Your task to perform on an android device: turn pop-ups off in chrome Image 0: 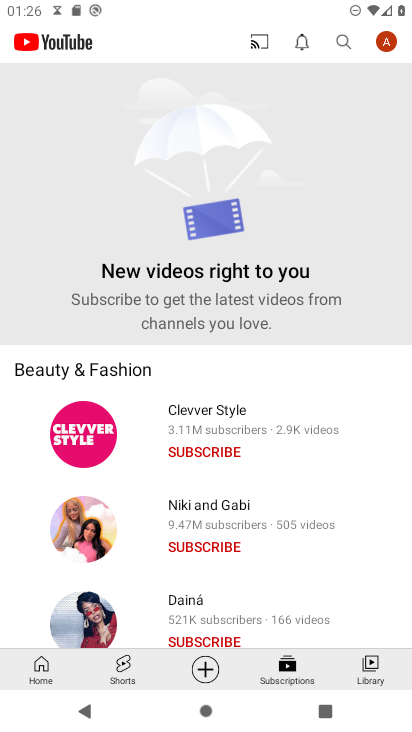
Step 0: press home button
Your task to perform on an android device: turn pop-ups off in chrome Image 1: 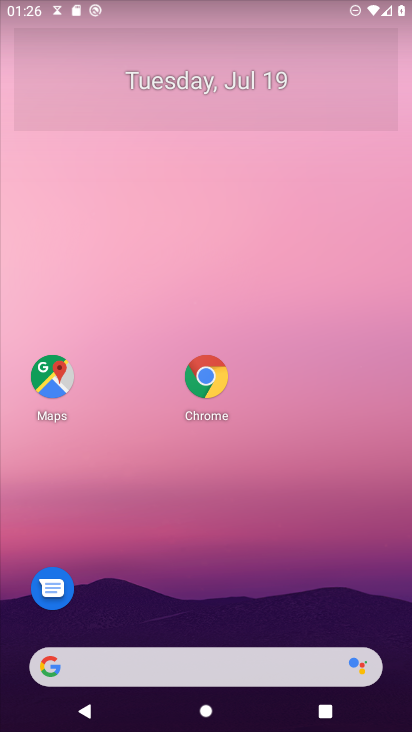
Step 1: drag from (297, 632) to (364, 54)
Your task to perform on an android device: turn pop-ups off in chrome Image 2: 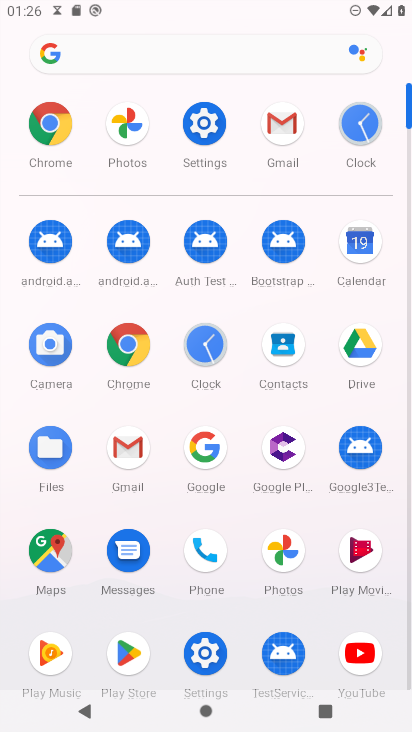
Step 2: click (47, 133)
Your task to perform on an android device: turn pop-ups off in chrome Image 3: 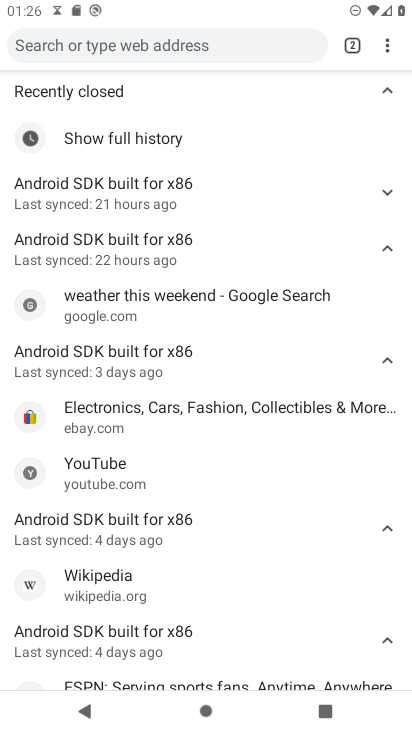
Step 3: drag from (389, 50) to (225, 383)
Your task to perform on an android device: turn pop-ups off in chrome Image 4: 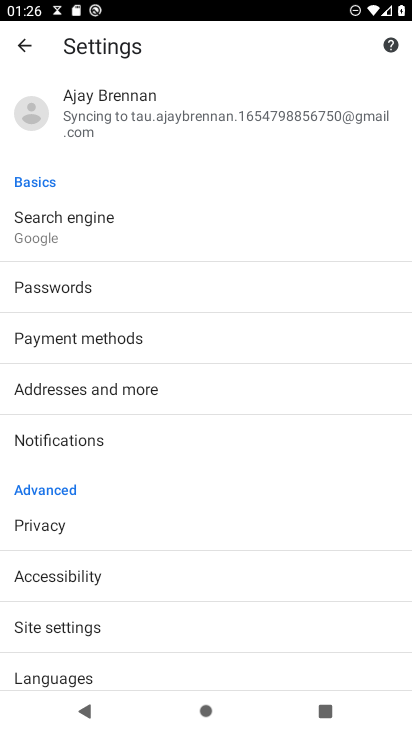
Step 4: click (53, 628)
Your task to perform on an android device: turn pop-ups off in chrome Image 5: 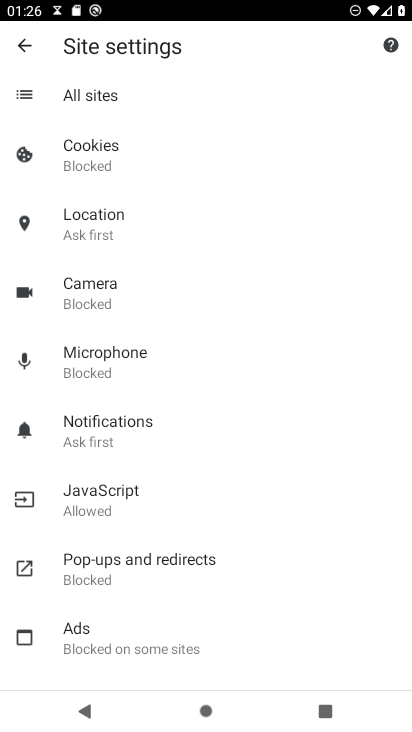
Step 5: click (121, 564)
Your task to perform on an android device: turn pop-ups off in chrome Image 6: 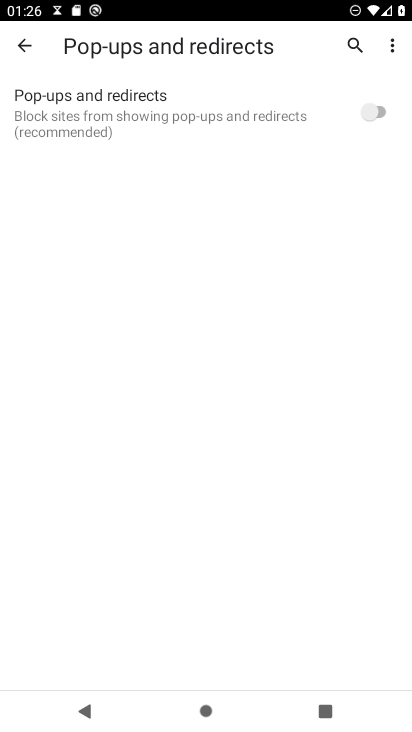
Step 6: task complete